Your task to perform on an android device: delete location history Image 0: 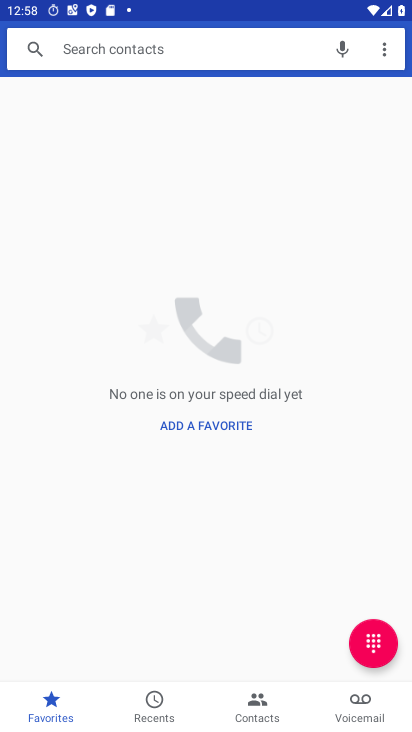
Step 0: press home button
Your task to perform on an android device: delete location history Image 1: 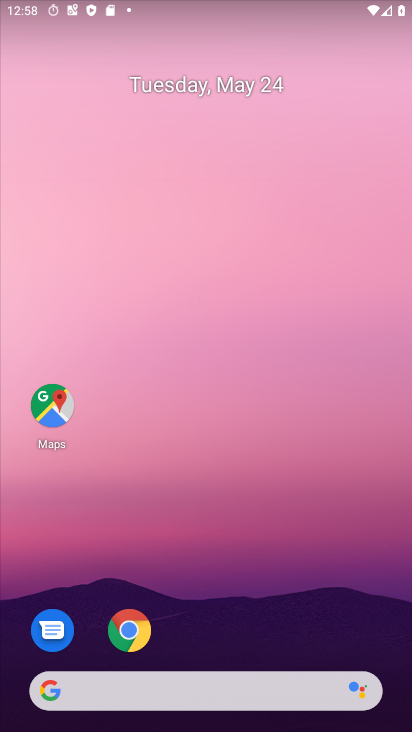
Step 1: click (52, 408)
Your task to perform on an android device: delete location history Image 2: 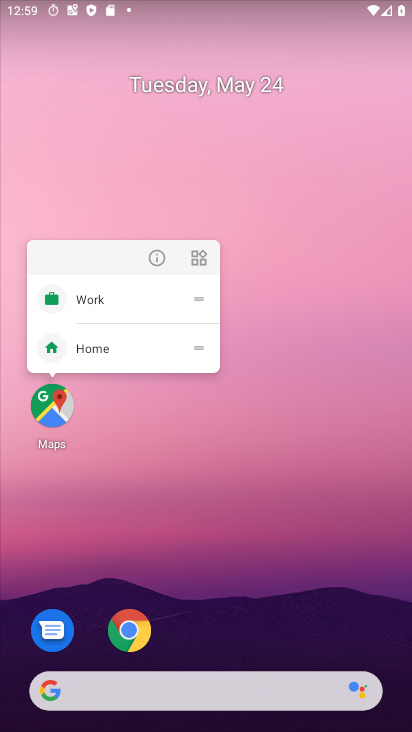
Step 2: click (52, 408)
Your task to perform on an android device: delete location history Image 3: 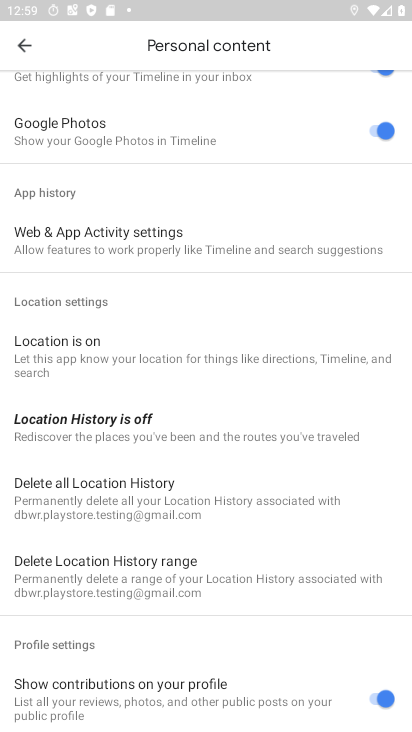
Step 3: click (107, 498)
Your task to perform on an android device: delete location history Image 4: 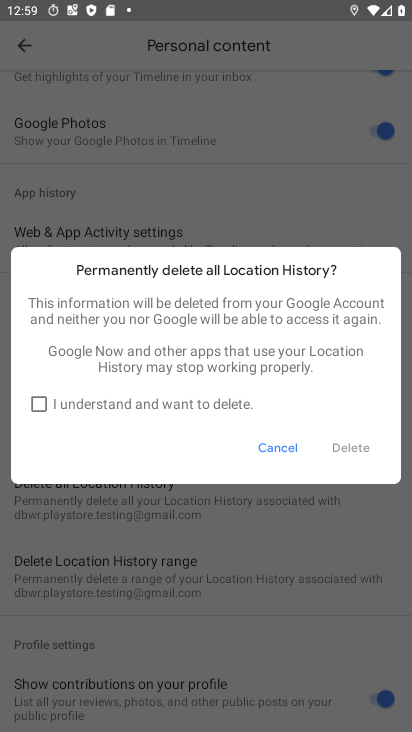
Step 4: click (37, 412)
Your task to perform on an android device: delete location history Image 5: 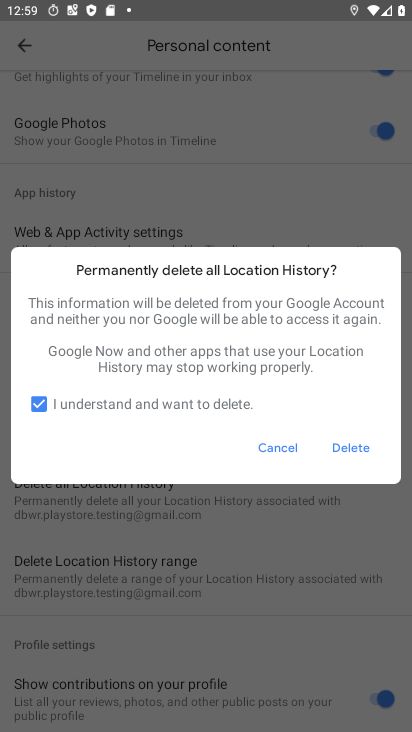
Step 5: click (355, 451)
Your task to perform on an android device: delete location history Image 6: 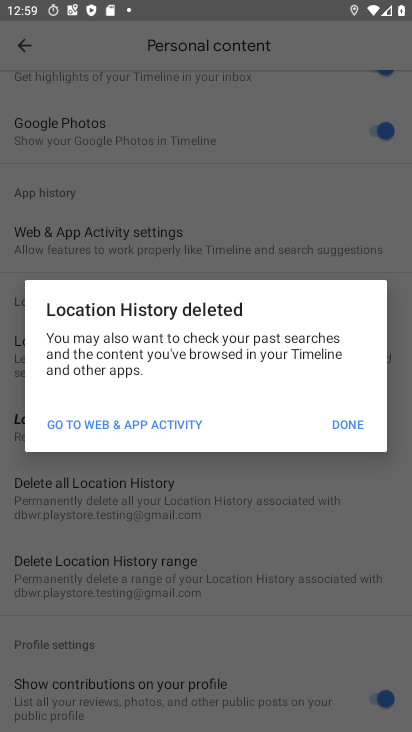
Step 6: click (343, 424)
Your task to perform on an android device: delete location history Image 7: 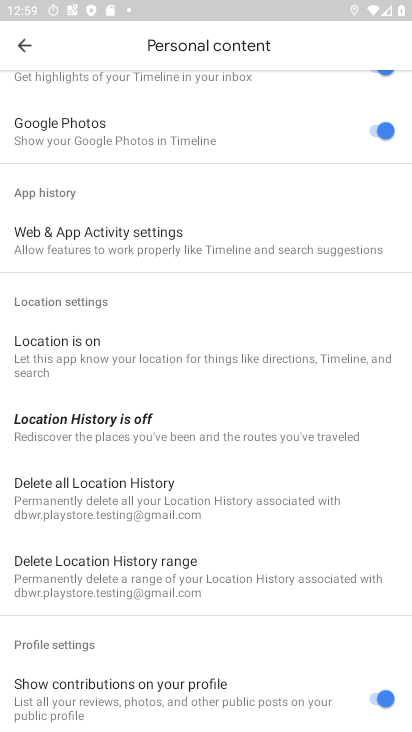
Step 7: task complete